Your task to perform on an android device: Search for Mexican restaurants on Maps Image 0: 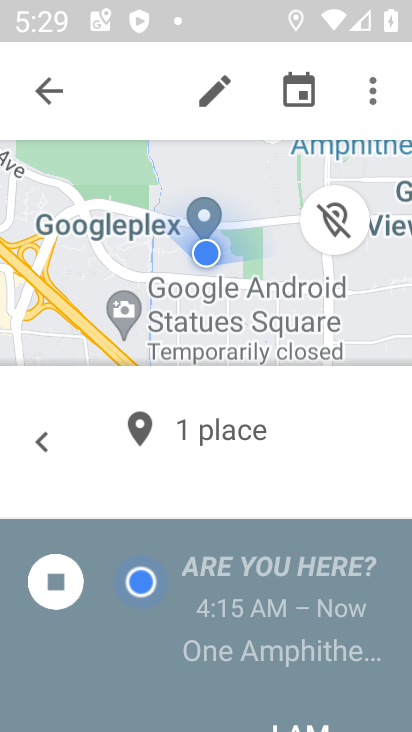
Step 0: press home button
Your task to perform on an android device: Search for Mexican restaurants on Maps Image 1: 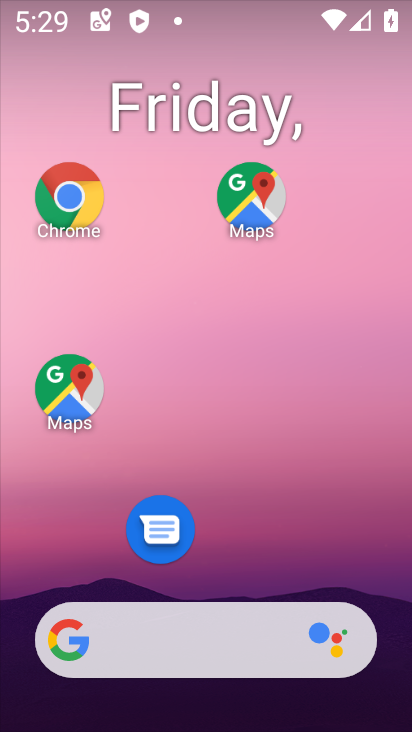
Step 1: drag from (270, 555) to (309, 121)
Your task to perform on an android device: Search for Mexican restaurants on Maps Image 2: 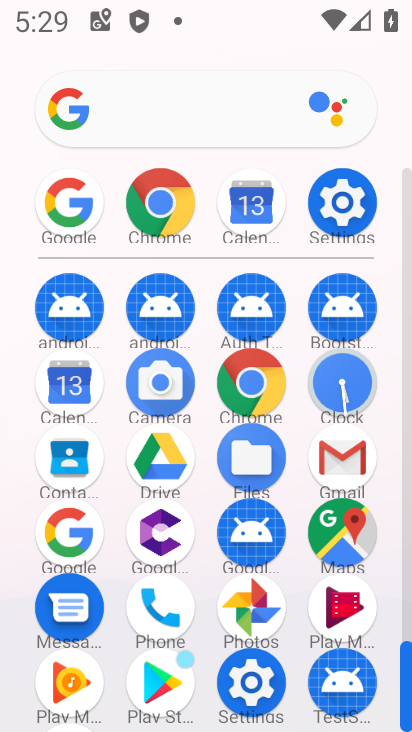
Step 2: click (333, 540)
Your task to perform on an android device: Search for Mexican restaurants on Maps Image 3: 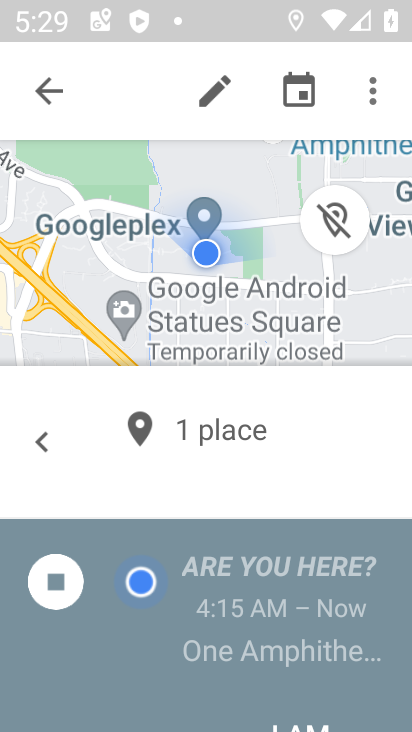
Step 3: click (41, 90)
Your task to perform on an android device: Search for Mexican restaurants on Maps Image 4: 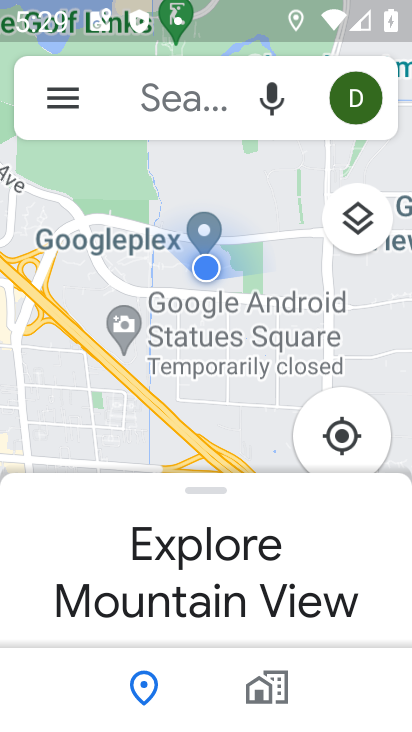
Step 4: click (151, 102)
Your task to perform on an android device: Search for Mexican restaurants on Maps Image 5: 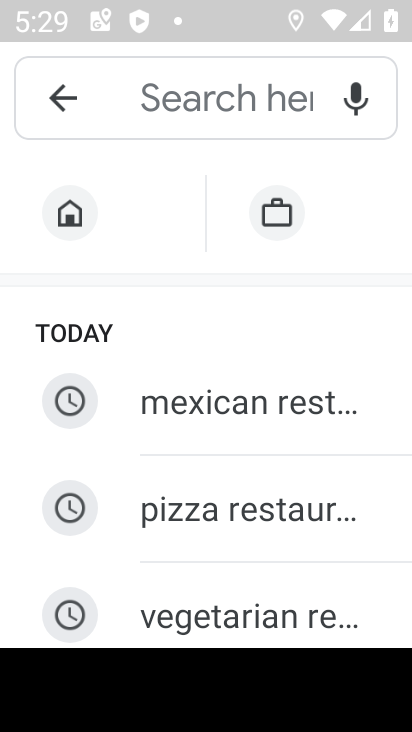
Step 5: click (241, 402)
Your task to perform on an android device: Search for Mexican restaurants on Maps Image 6: 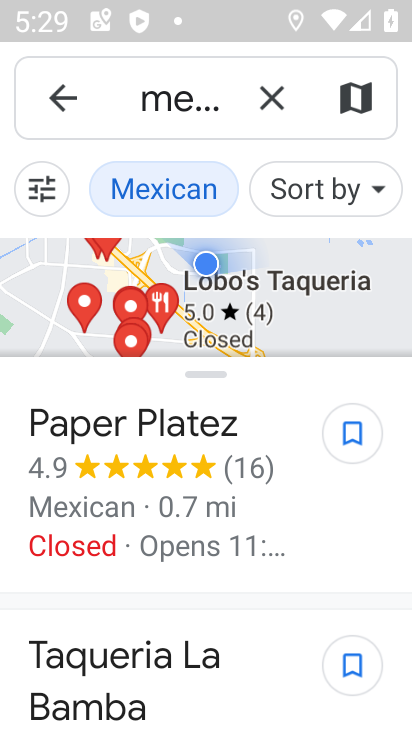
Step 6: task complete